Your task to perform on an android device: turn on data saver in the chrome app Image 0: 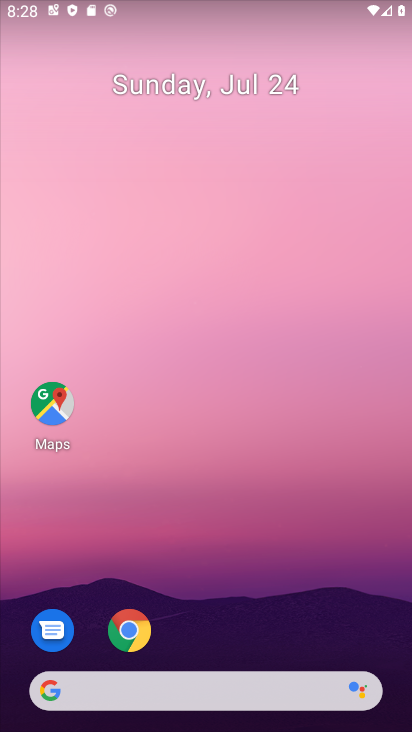
Step 0: click (141, 625)
Your task to perform on an android device: turn on data saver in the chrome app Image 1: 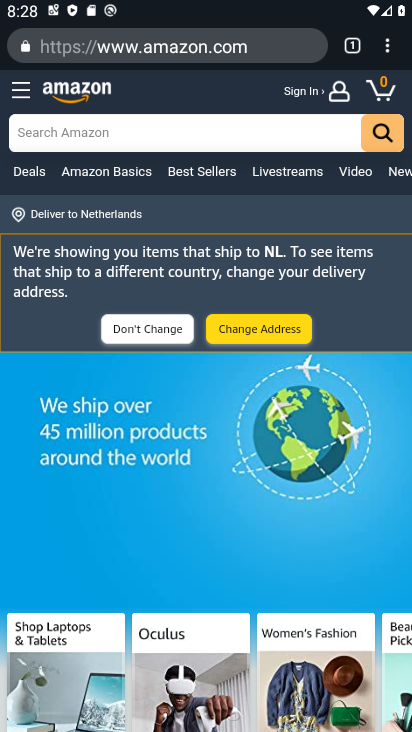
Step 1: click (387, 43)
Your task to perform on an android device: turn on data saver in the chrome app Image 2: 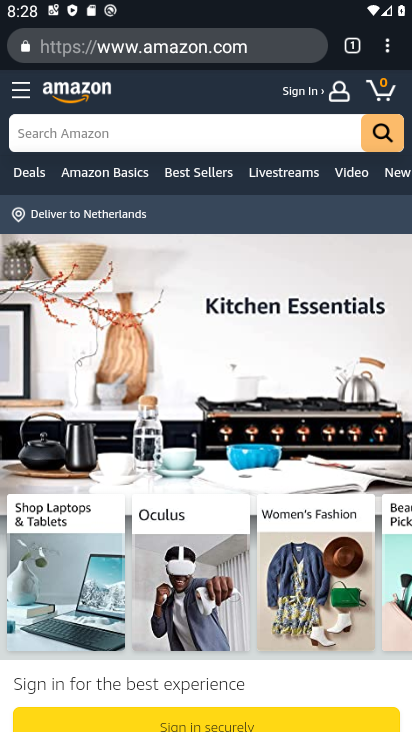
Step 2: click (387, 43)
Your task to perform on an android device: turn on data saver in the chrome app Image 3: 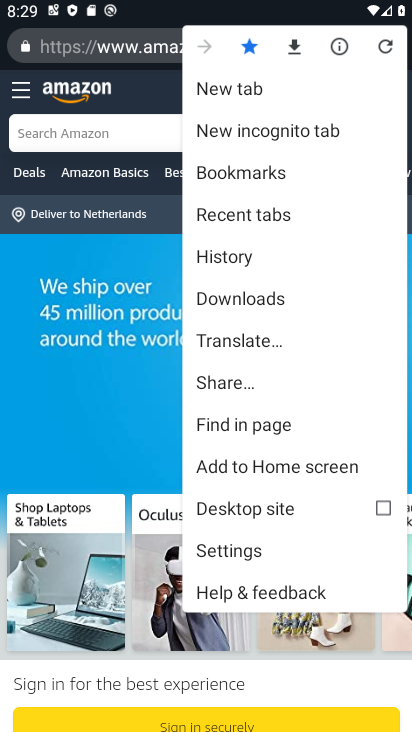
Step 3: click (234, 543)
Your task to perform on an android device: turn on data saver in the chrome app Image 4: 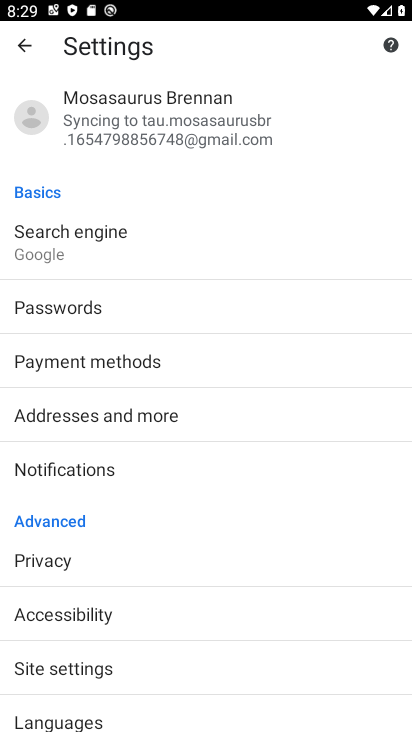
Step 4: drag from (137, 674) to (110, 243)
Your task to perform on an android device: turn on data saver in the chrome app Image 5: 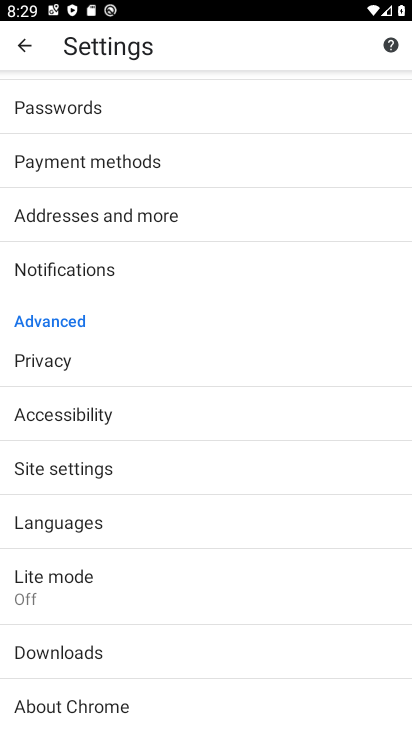
Step 5: click (127, 587)
Your task to perform on an android device: turn on data saver in the chrome app Image 6: 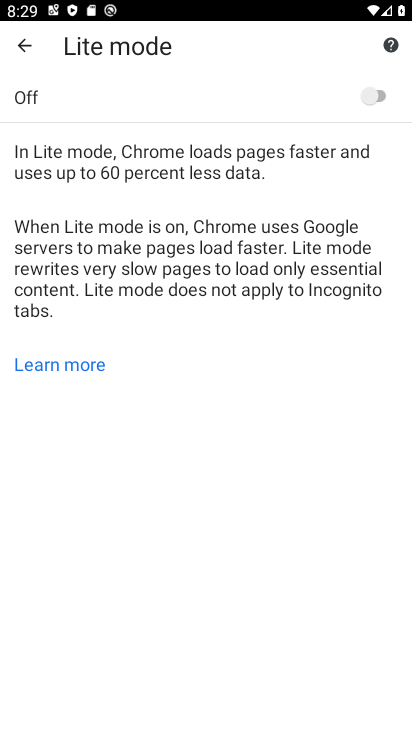
Step 6: click (381, 103)
Your task to perform on an android device: turn on data saver in the chrome app Image 7: 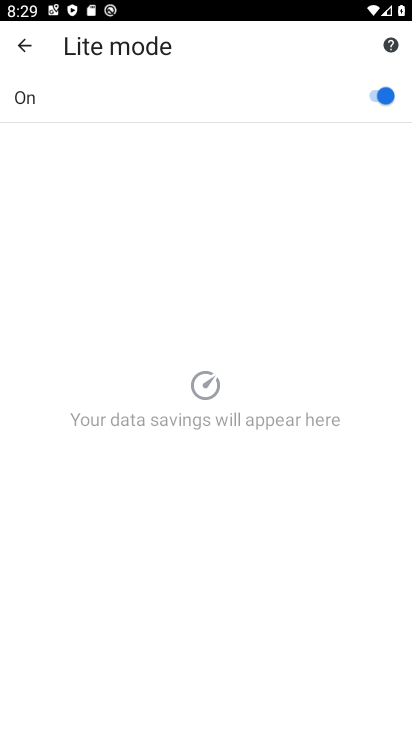
Step 7: task complete